Your task to perform on an android device: Is it going to rain today? Image 0: 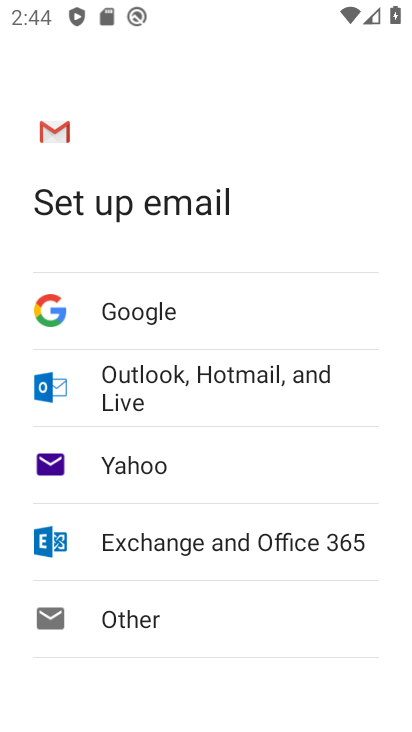
Step 0: press home button
Your task to perform on an android device: Is it going to rain today? Image 1: 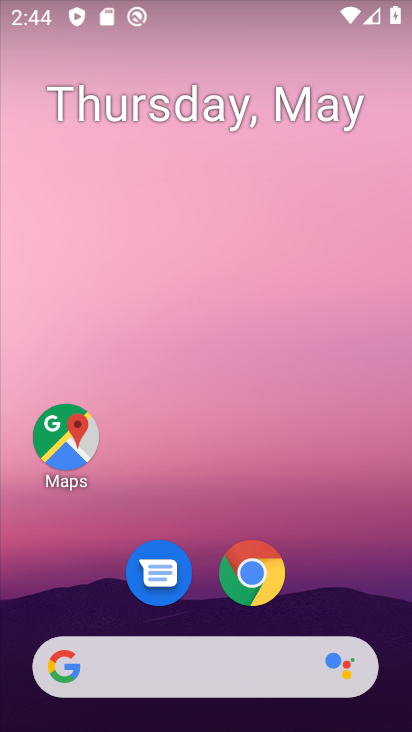
Step 1: click (228, 650)
Your task to perform on an android device: Is it going to rain today? Image 2: 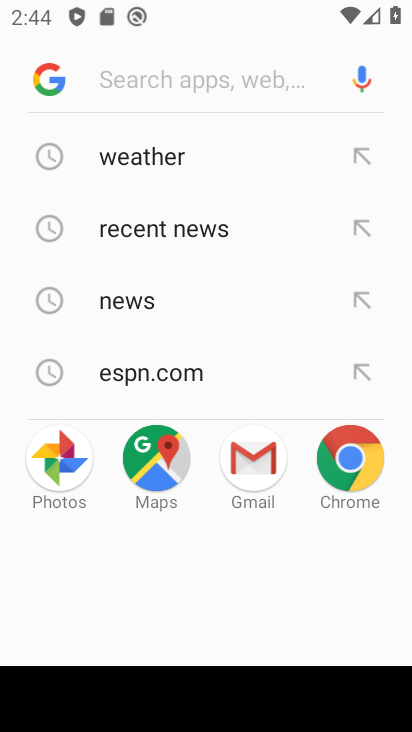
Step 2: click (150, 153)
Your task to perform on an android device: Is it going to rain today? Image 3: 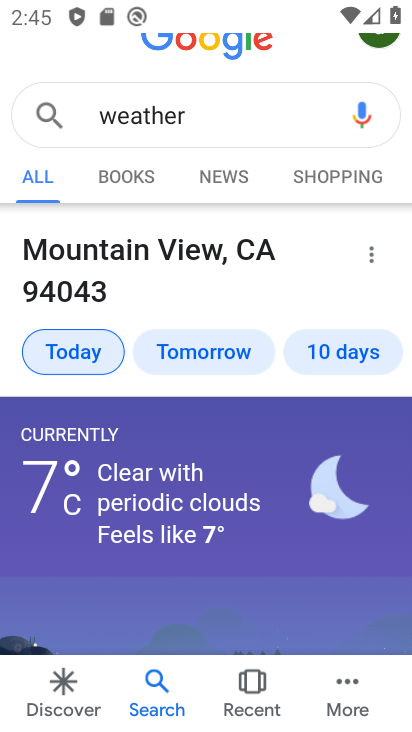
Step 3: drag from (228, 496) to (178, 243)
Your task to perform on an android device: Is it going to rain today? Image 4: 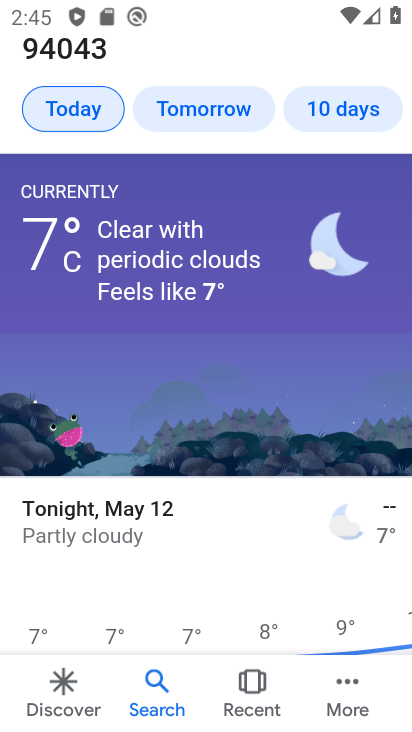
Step 4: click (217, 512)
Your task to perform on an android device: Is it going to rain today? Image 5: 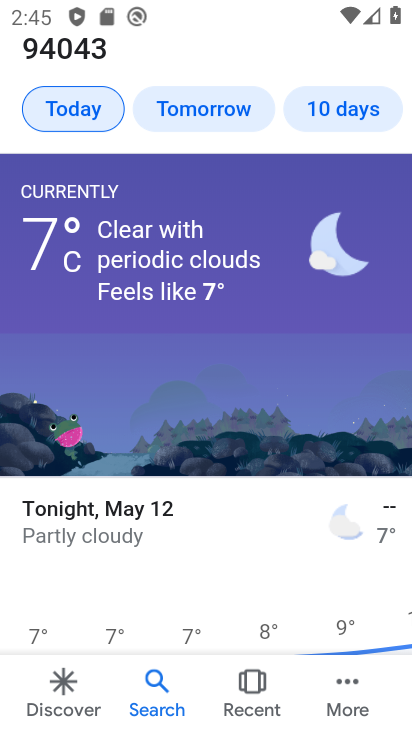
Step 5: task complete